Your task to perform on an android device: Show me recent news Image 0: 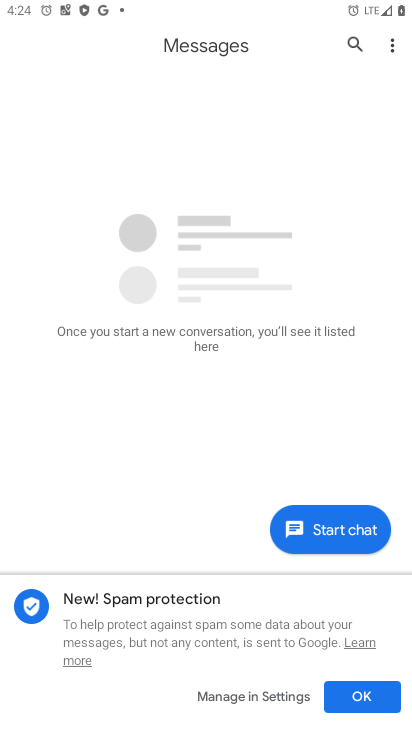
Step 0: press home button
Your task to perform on an android device: Show me recent news Image 1: 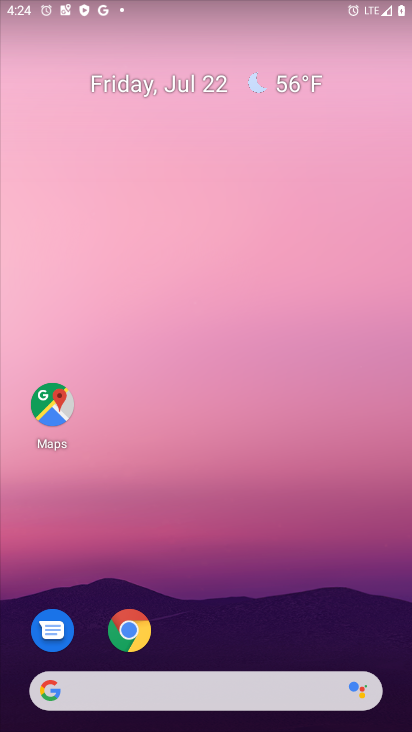
Step 1: task complete